Your task to perform on an android device: Empty the shopping cart on amazon. Image 0: 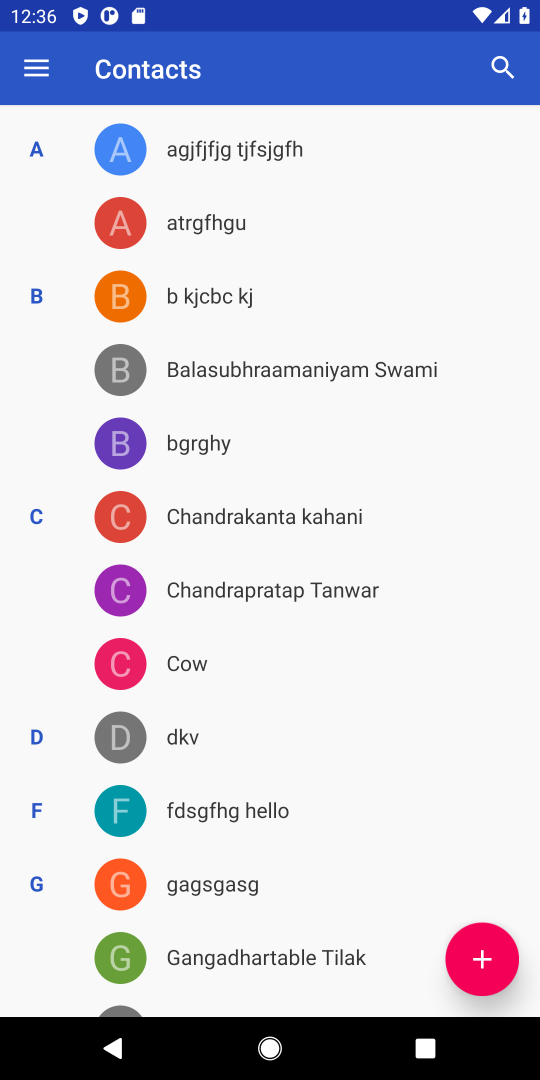
Step 0: press home button
Your task to perform on an android device: Empty the shopping cart on amazon. Image 1: 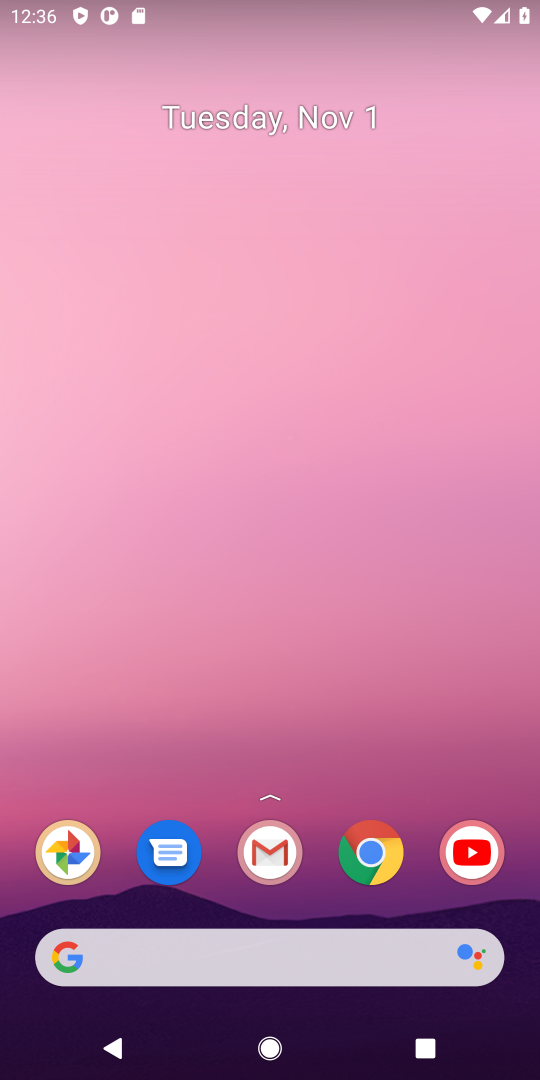
Step 1: click (371, 863)
Your task to perform on an android device: Empty the shopping cart on amazon. Image 2: 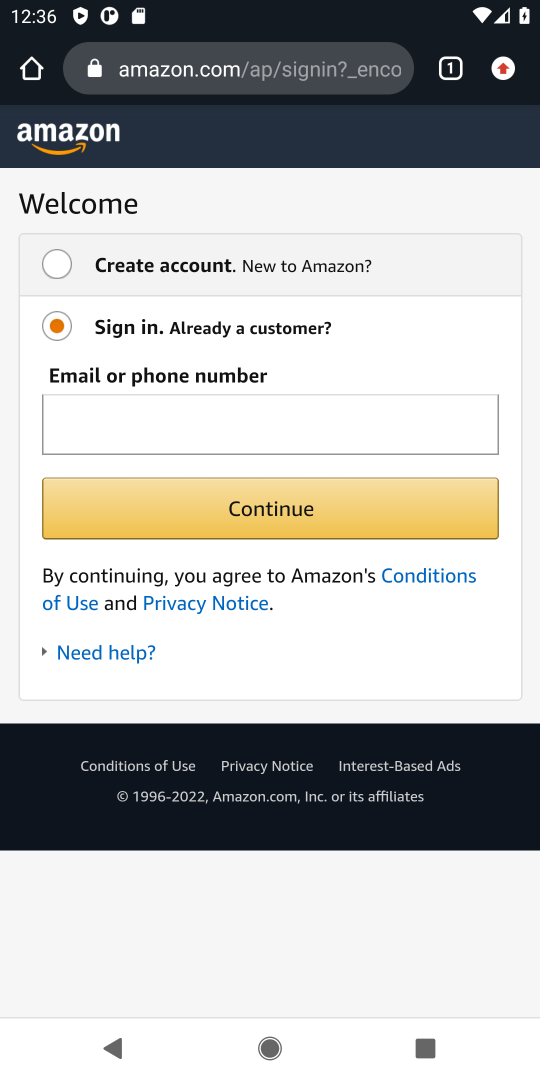
Step 2: click (211, 73)
Your task to perform on an android device: Empty the shopping cart on amazon. Image 3: 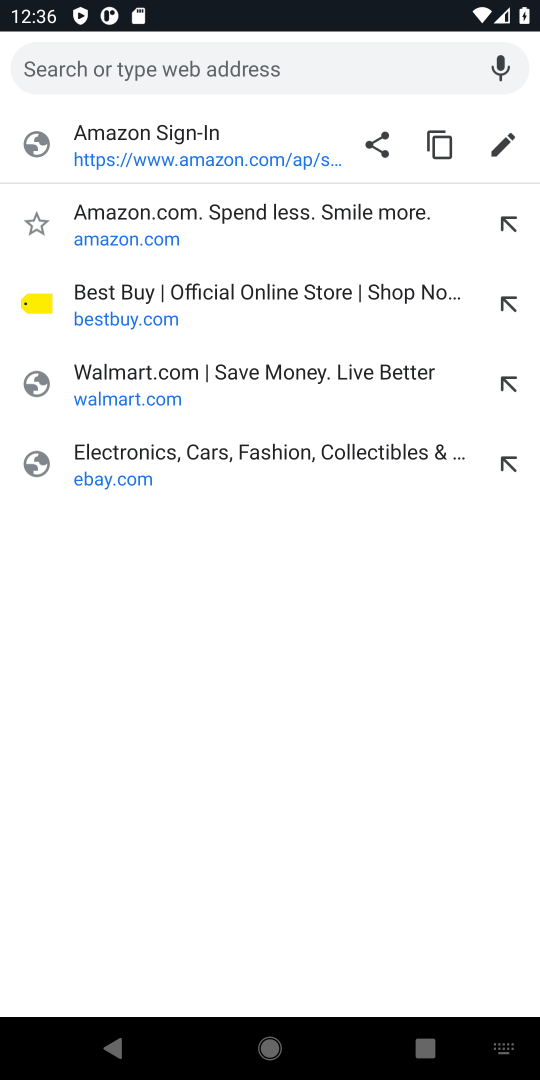
Step 3: type "amazon"
Your task to perform on an android device: Empty the shopping cart on amazon. Image 4: 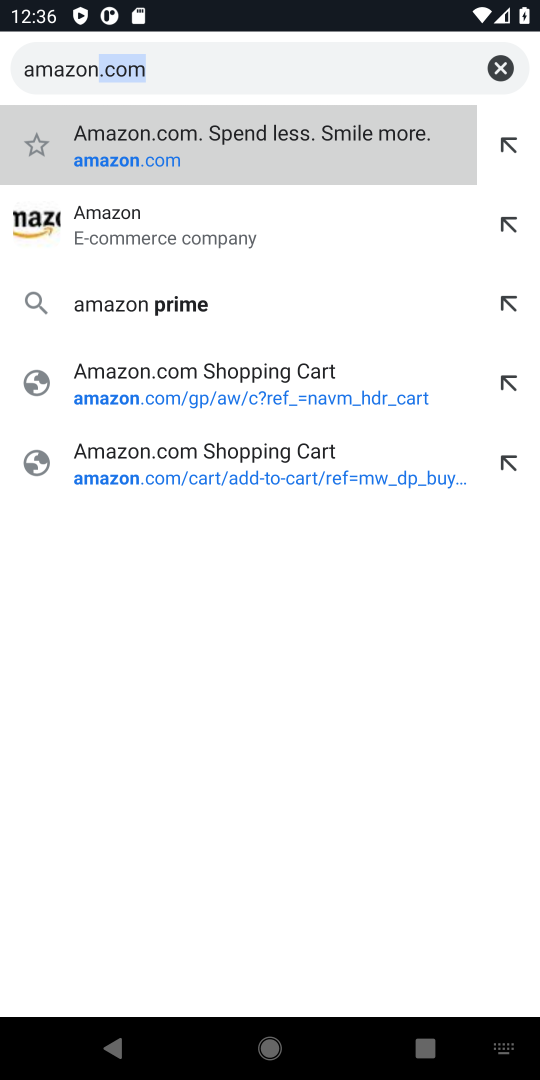
Step 4: type ""
Your task to perform on an android device: Empty the shopping cart on amazon. Image 5: 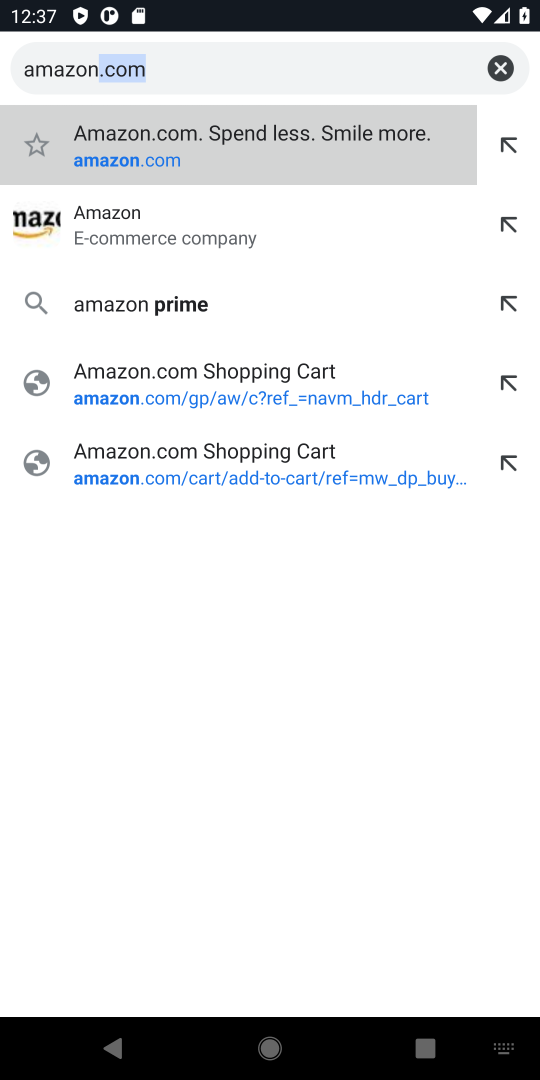
Step 5: press enter
Your task to perform on an android device: Empty the shopping cart on amazon. Image 6: 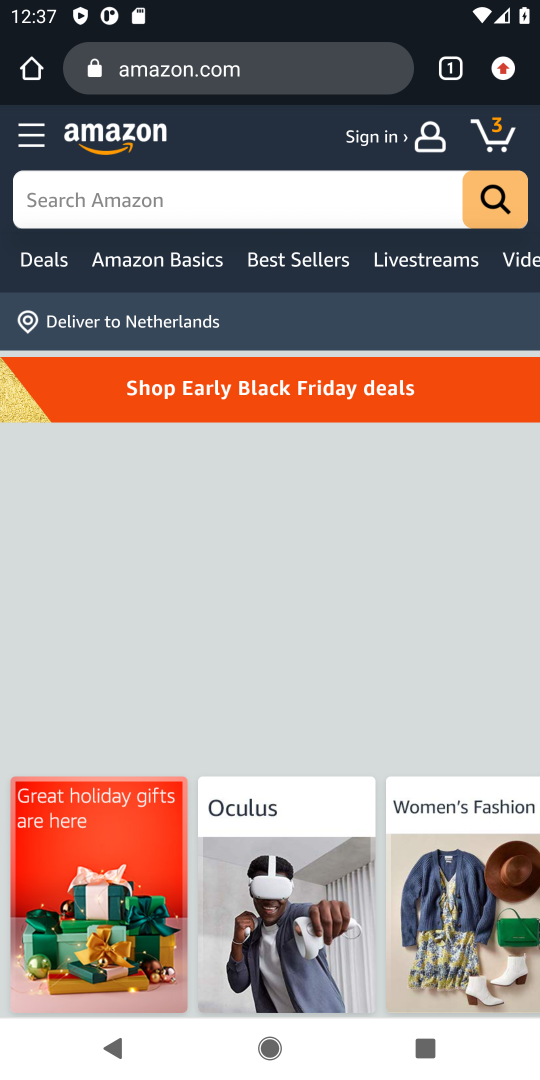
Step 6: click (503, 137)
Your task to perform on an android device: Empty the shopping cart on amazon. Image 7: 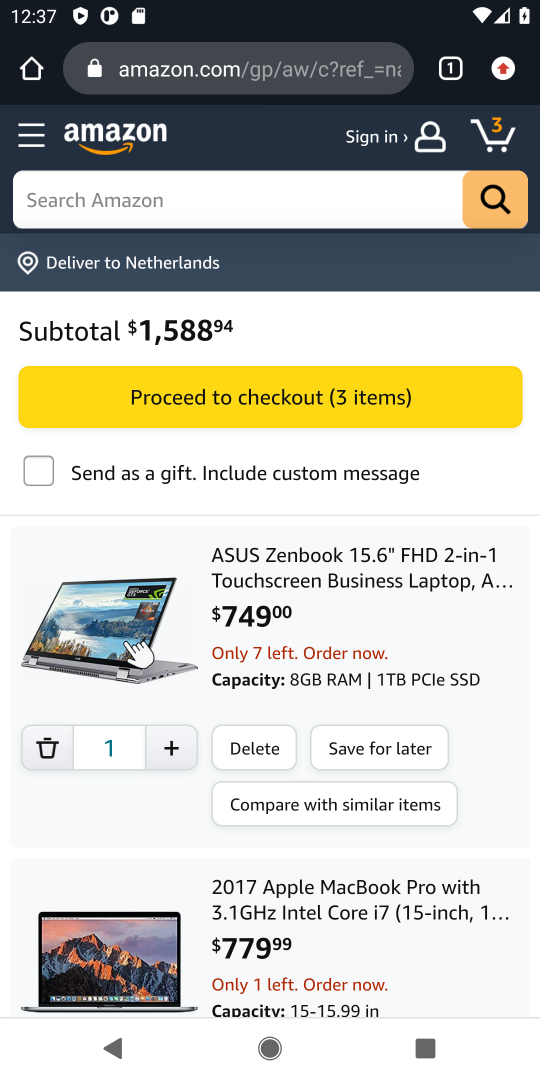
Step 7: click (50, 753)
Your task to perform on an android device: Empty the shopping cart on amazon. Image 8: 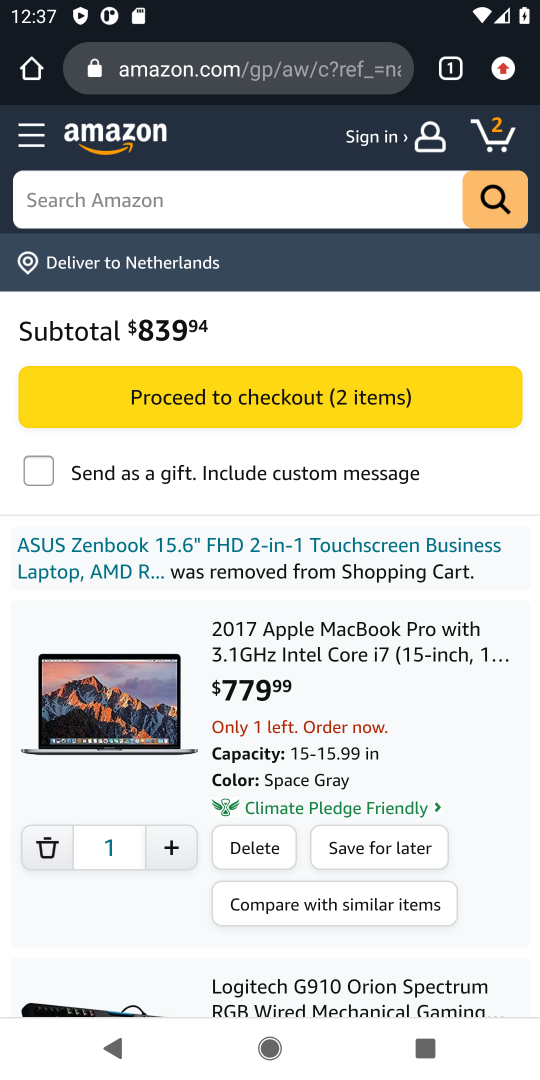
Step 8: click (51, 858)
Your task to perform on an android device: Empty the shopping cart on amazon. Image 9: 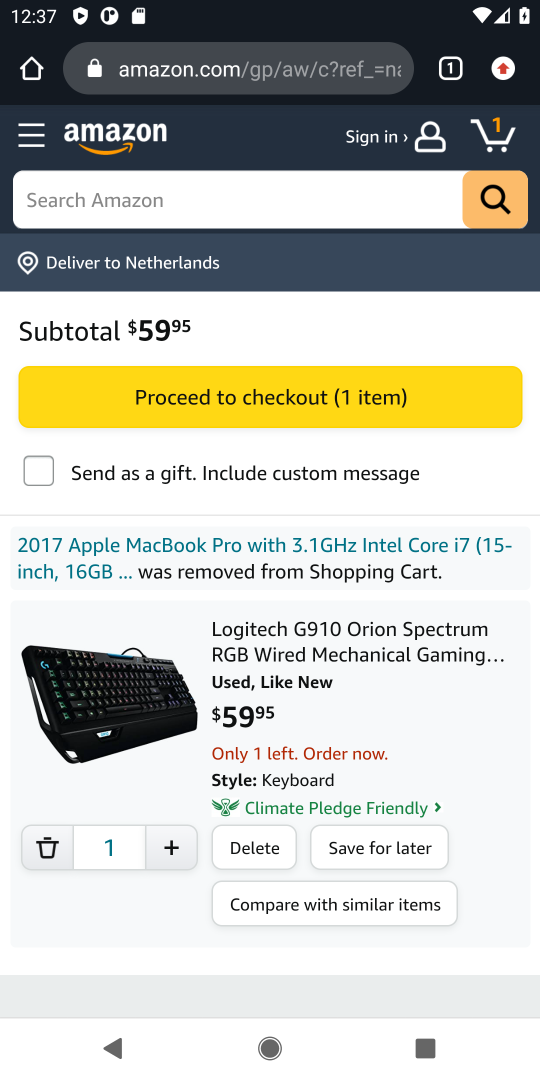
Step 9: click (51, 858)
Your task to perform on an android device: Empty the shopping cart on amazon. Image 10: 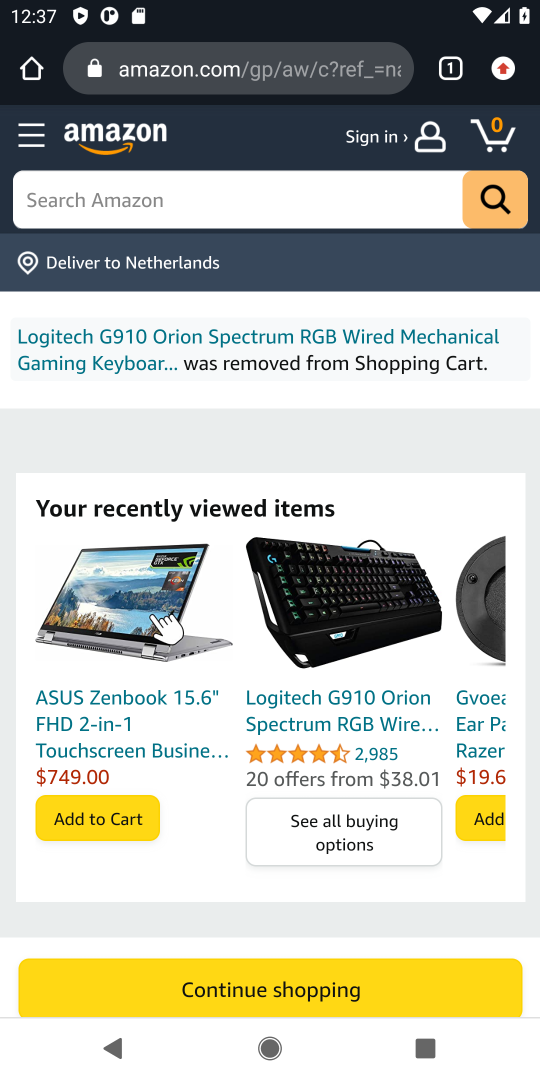
Step 10: task complete